Your task to perform on an android device: Open the phone app and click the voicemail tab. Image 0: 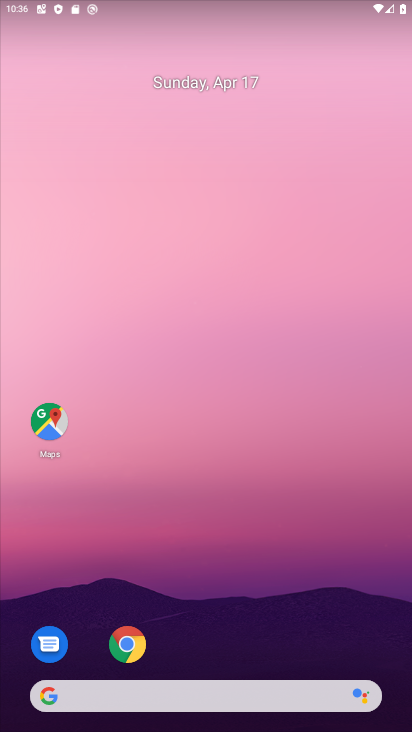
Step 0: drag from (205, 404) to (283, 10)
Your task to perform on an android device: Open the phone app and click the voicemail tab. Image 1: 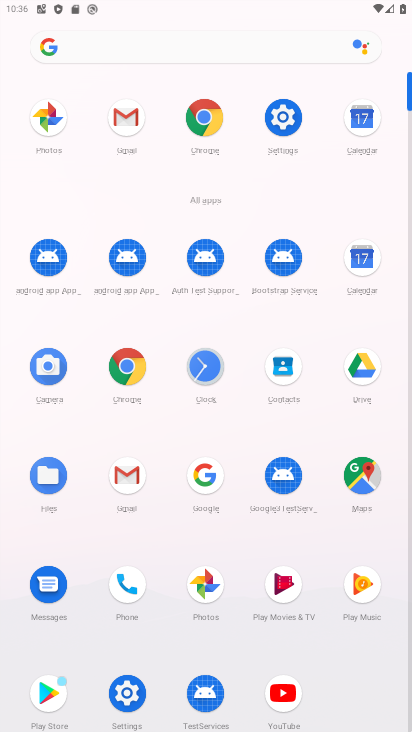
Step 1: click (118, 581)
Your task to perform on an android device: Open the phone app and click the voicemail tab. Image 2: 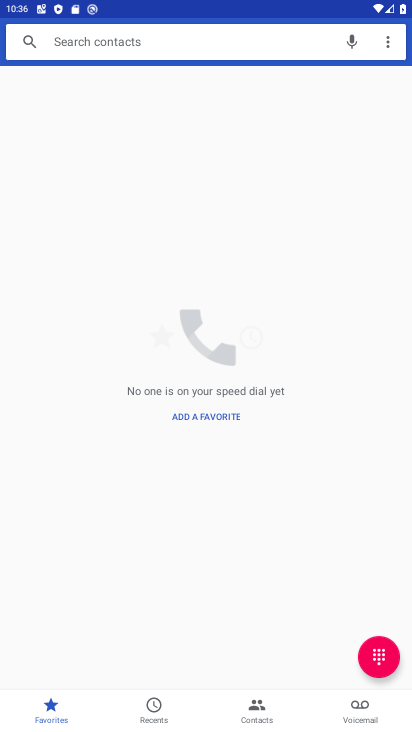
Step 2: click (357, 708)
Your task to perform on an android device: Open the phone app and click the voicemail tab. Image 3: 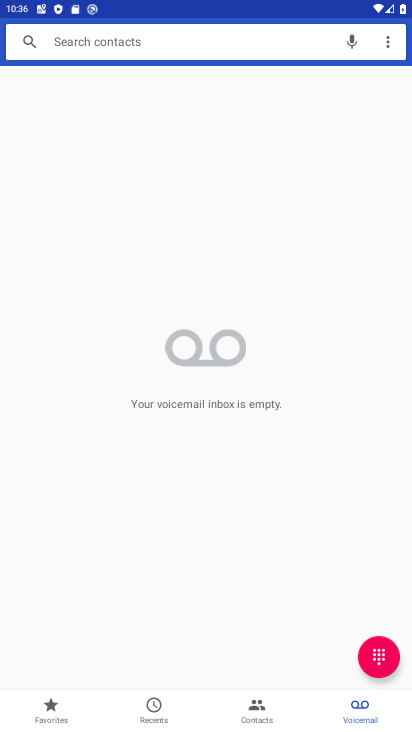
Step 3: task complete